Your task to perform on an android device: Search for "razer huntsman" on target, select the first entry, and add it to the cart. Image 0: 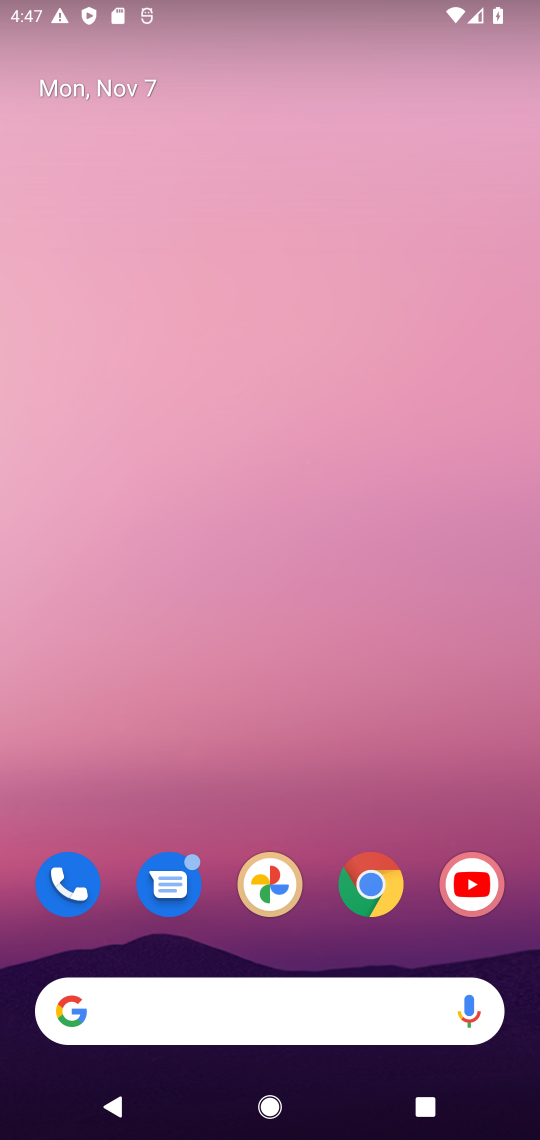
Step 0: drag from (314, 923) to (285, 105)
Your task to perform on an android device: Search for "razer huntsman" on target, select the first entry, and add it to the cart. Image 1: 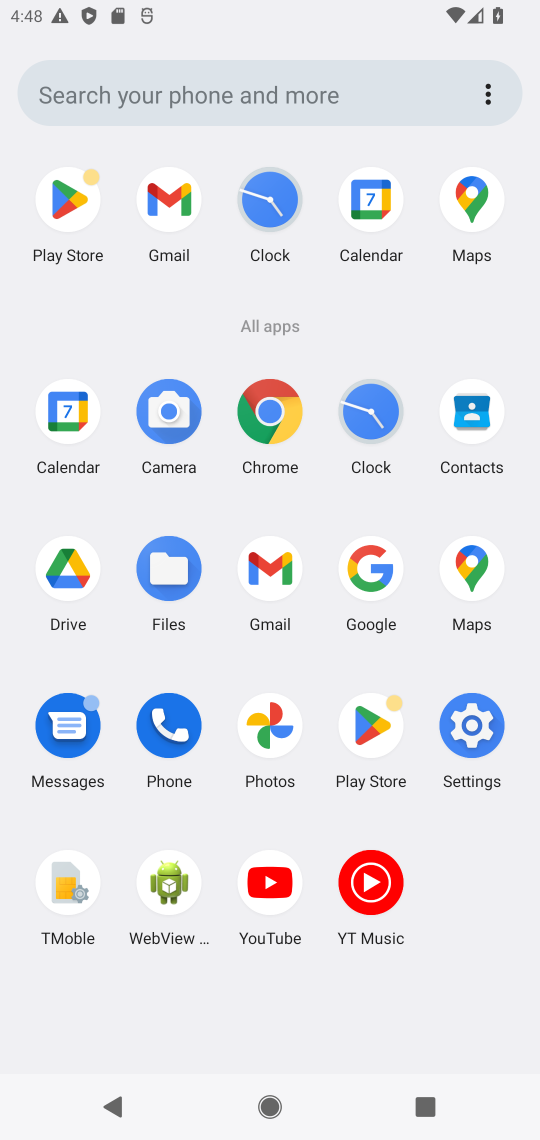
Step 1: click (272, 414)
Your task to perform on an android device: Search for "razer huntsman" on target, select the first entry, and add it to the cart. Image 2: 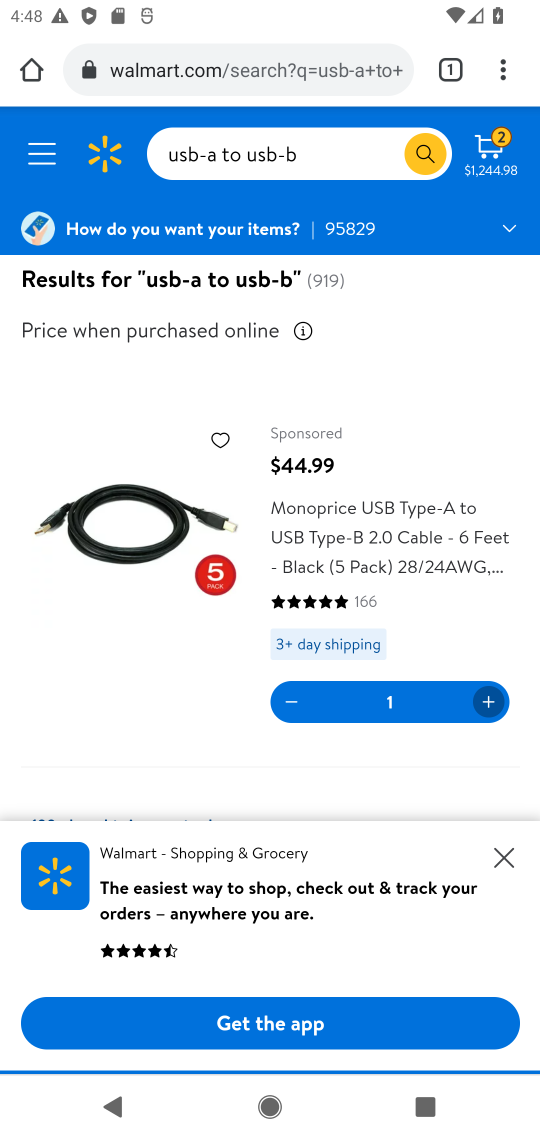
Step 2: click (291, 62)
Your task to perform on an android device: Search for "razer huntsman" on target, select the first entry, and add it to the cart. Image 3: 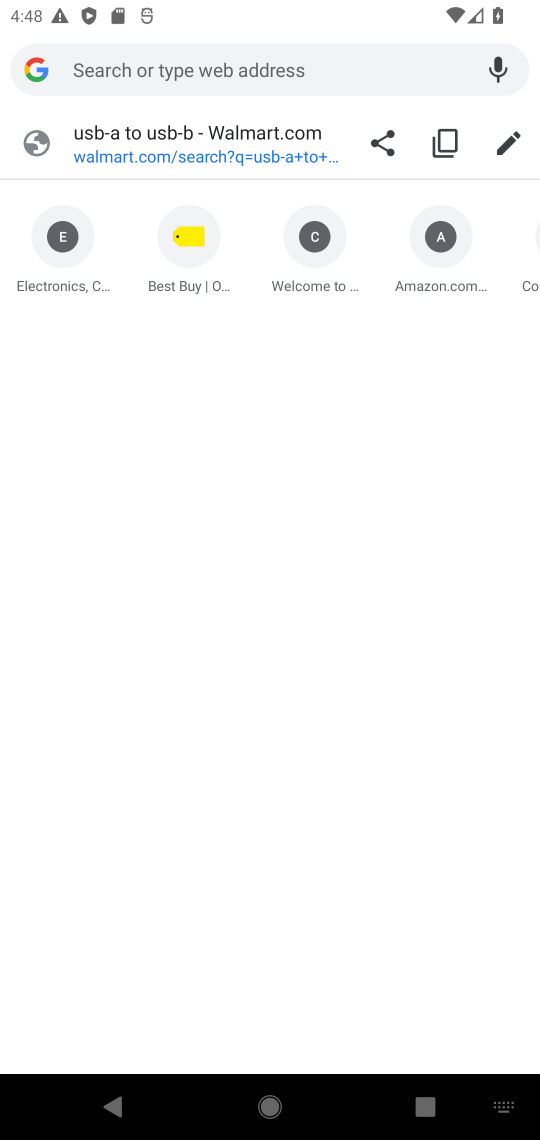
Step 3: type "target.com"
Your task to perform on an android device: Search for "razer huntsman" on target, select the first entry, and add it to the cart. Image 4: 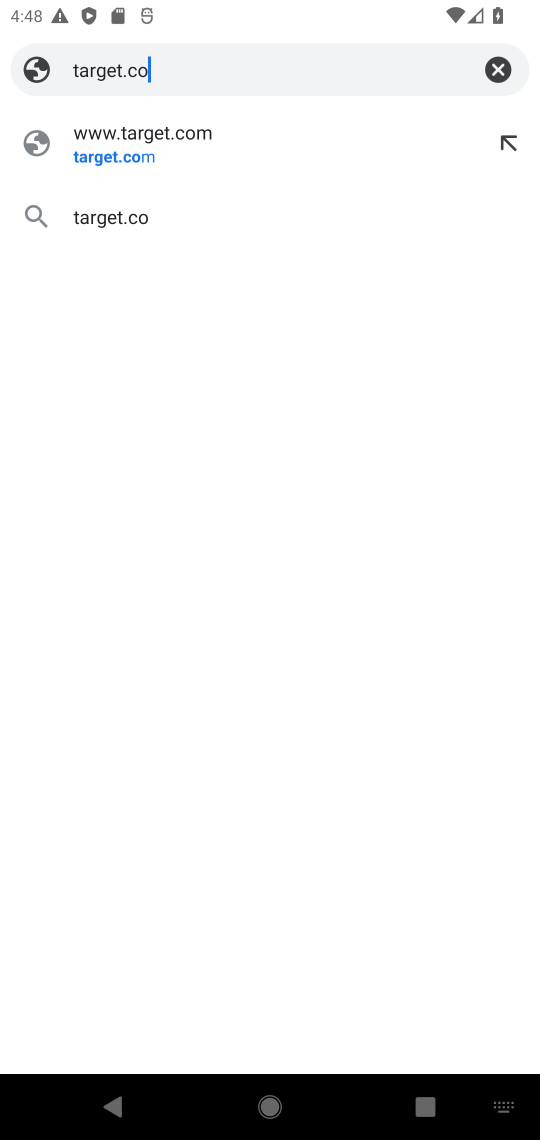
Step 4: press enter
Your task to perform on an android device: Search for "razer huntsman" on target, select the first entry, and add it to the cart. Image 5: 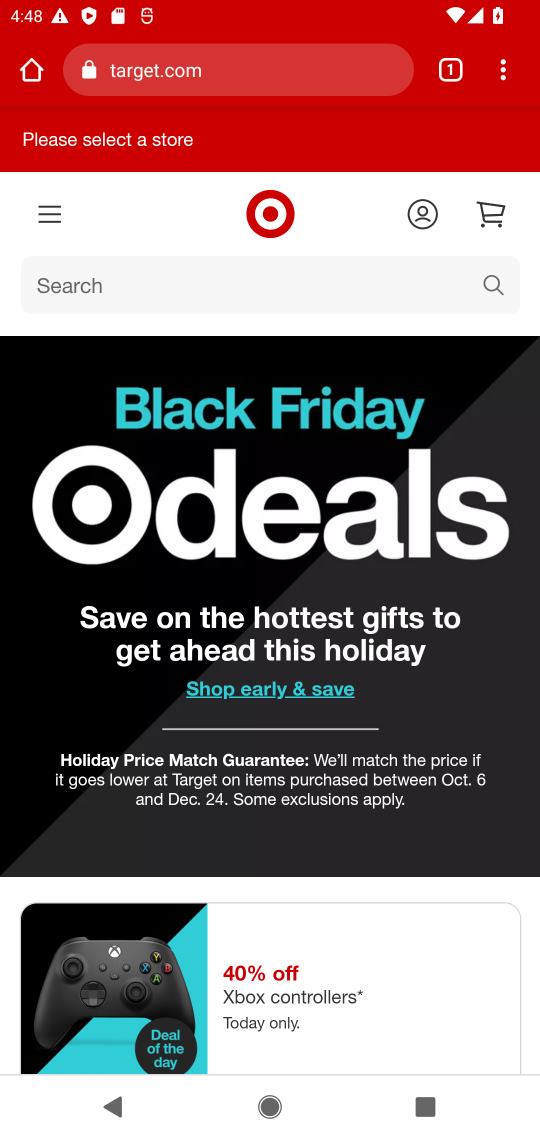
Step 5: drag from (338, 952) to (379, 1127)
Your task to perform on an android device: Search for "razer huntsman" on target, select the first entry, and add it to the cart. Image 6: 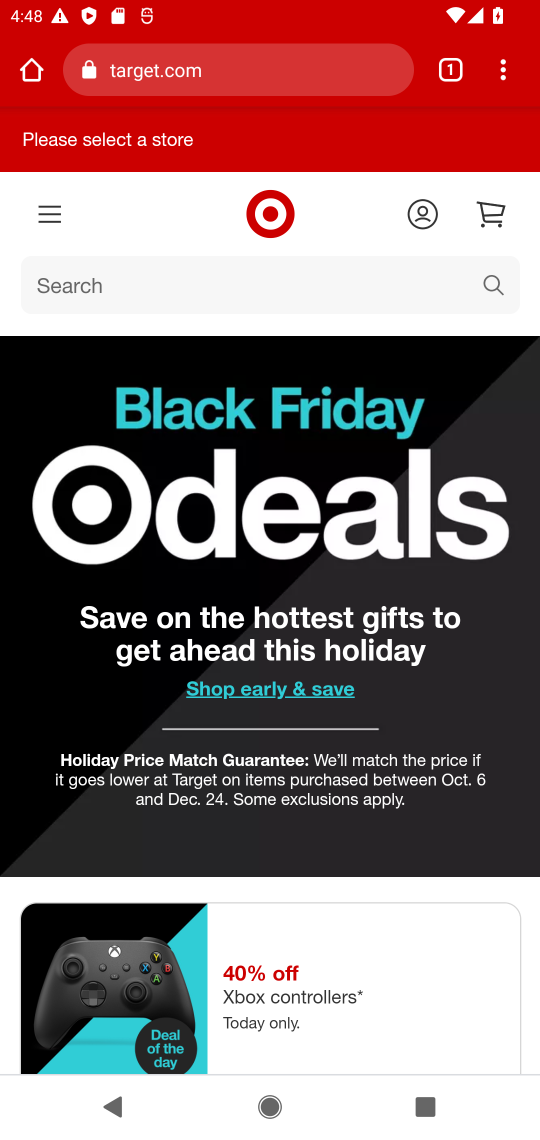
Step 6: click (139, 284)
Your task to perform on an android device: Search for "razer huntsman" on target, select the first entry, and add it to the cart. Image 7: 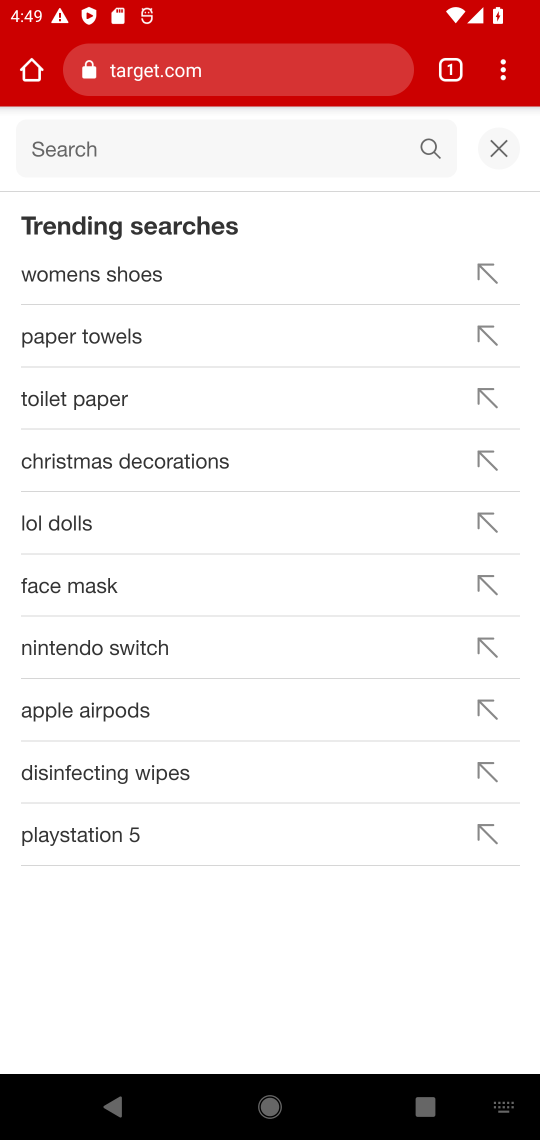
Step 7: type "razer huntsman"
Your task to perform on an android device: Search for "razer huntsman" on target, select the first entry, and add it to the cart. Image 8: 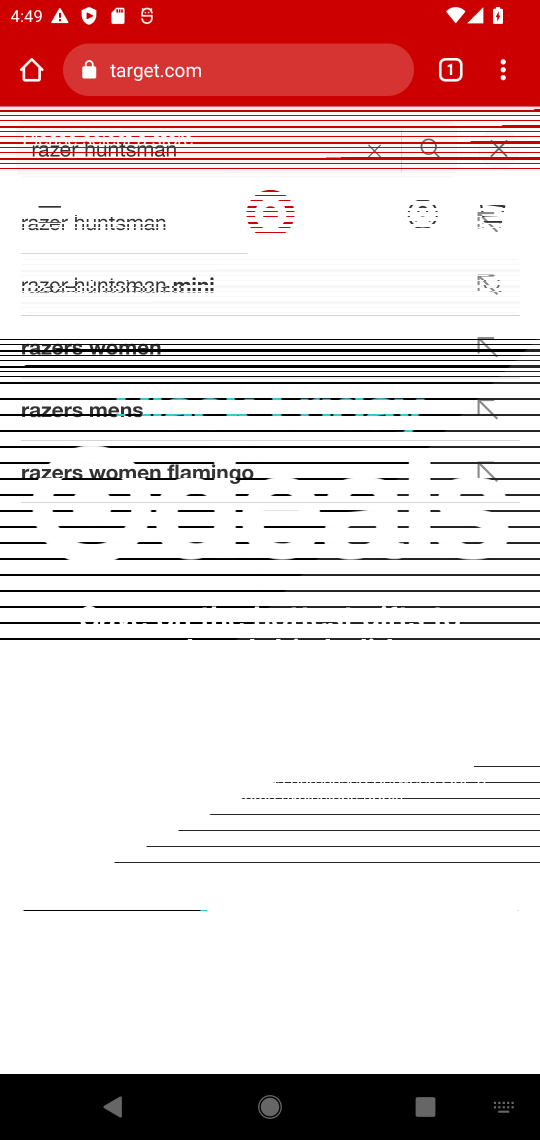
Step 8: press enter
Your task to perform on an android device: Search for "razer huntsman" on target, select the first entry, and add it to the cart. Image 9: 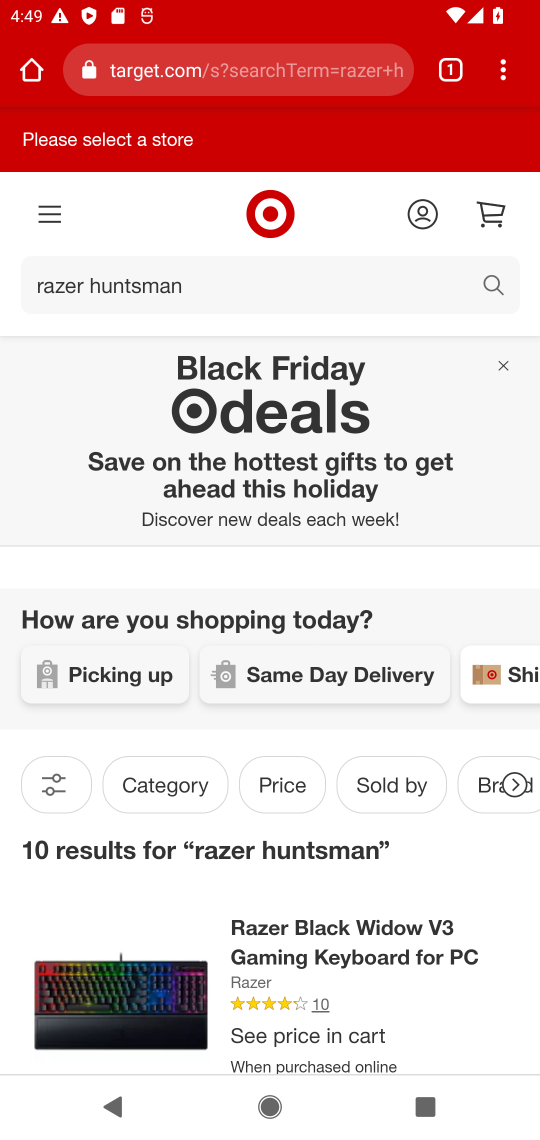
Step 9: drag from (338, 643) to (344, 137)
Your task to perform on an android device: Search for "razer huntsman" on target, select the first entry, and add it to the cart. Image 10: 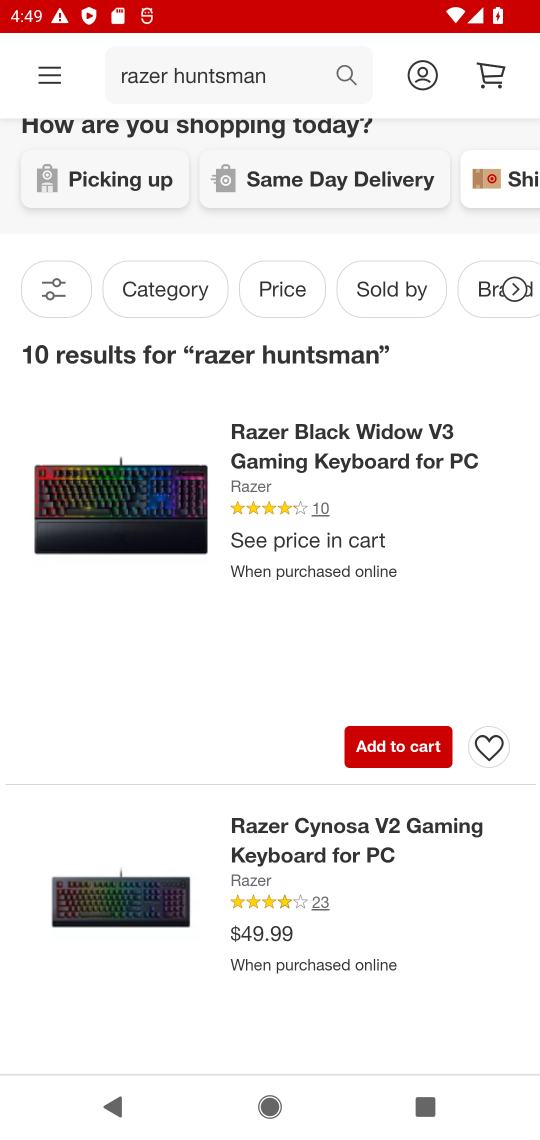
Step 10: drag from (260, 774) to (262, 1119)
Your task to perform on an android device: Search for "razer huntsman" on target, select the first entry, and add it to the cart. Image 11: 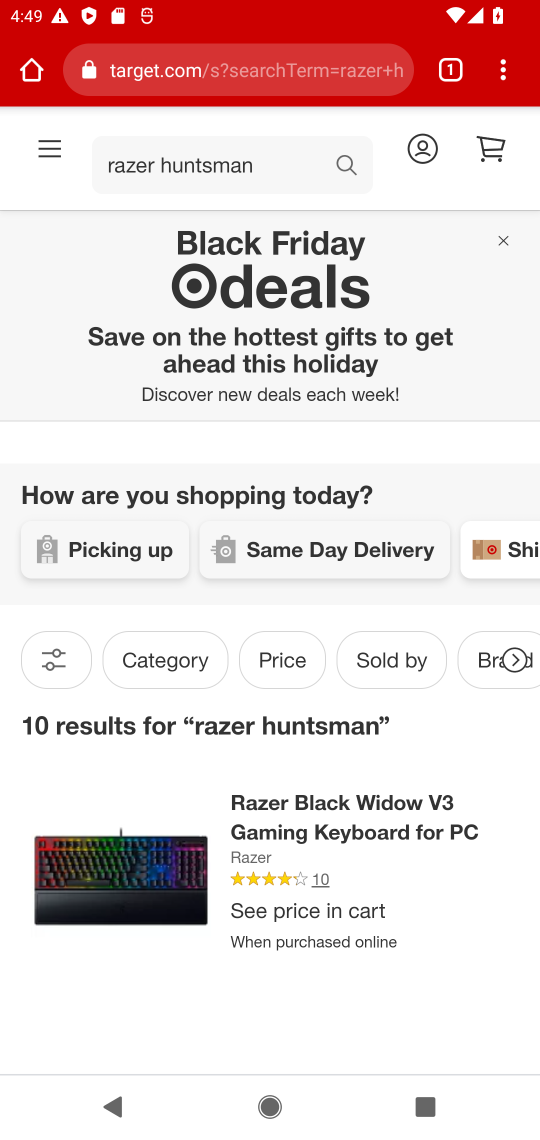
Step 11: drag from (269, 563) to (370, 220)
Your task to perform on an android device: Search for "razer huntsman" on target, select the first entry, and add it to the cart. Image 12: 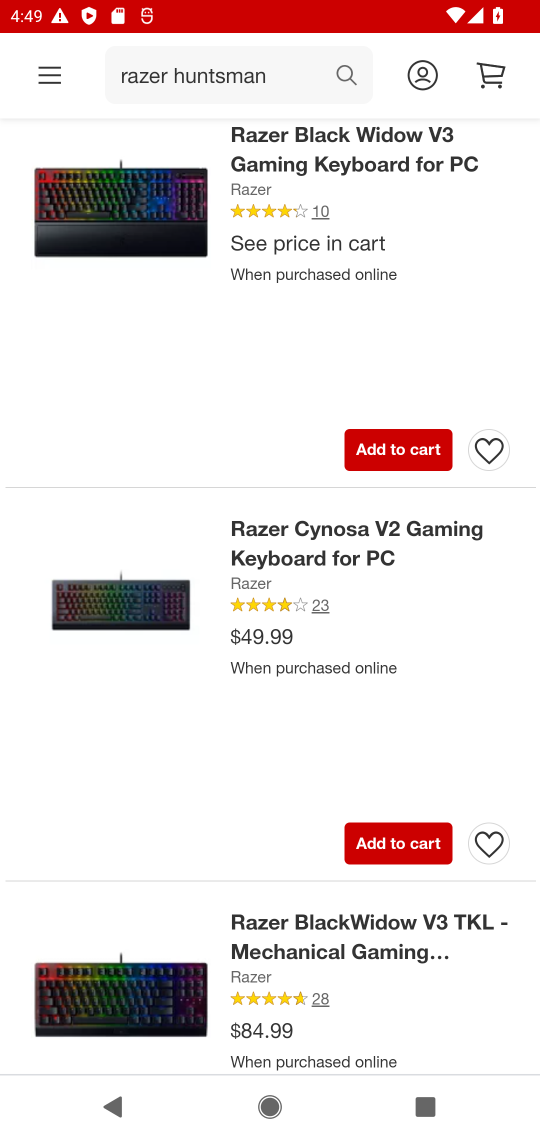
Step 12: drag from (330, 835) to (457, 225)
Your task to perform on an android device: Search for "razer huntsman" on target, select the first entry, and add it to the cart. Image 13: 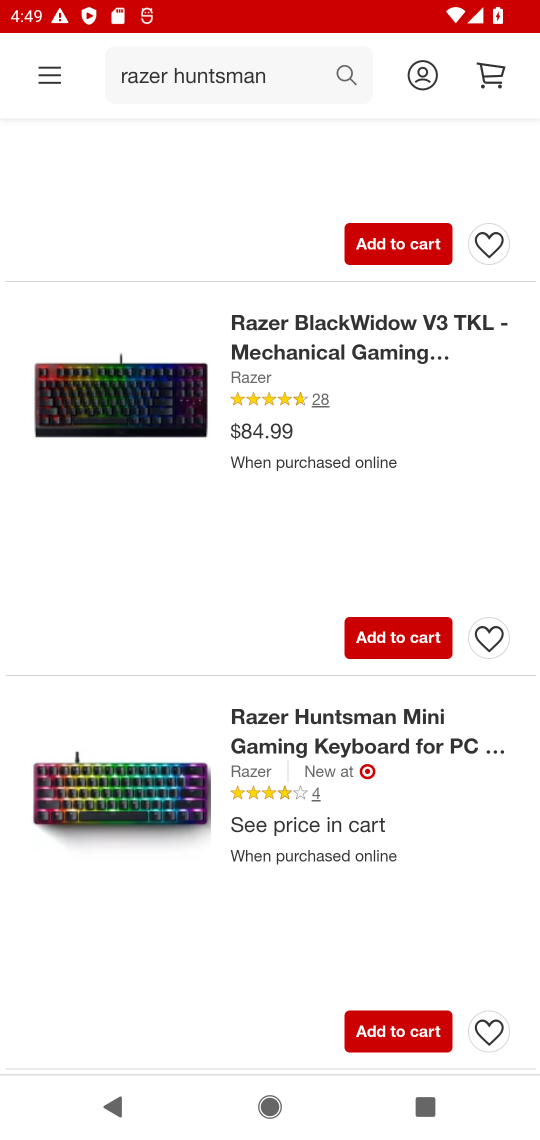
Step 13: drag from (333, 839) to (368, 458)
Your task to perform on an android device: Search for "razer huntsman" on target, select the first entry, and add it to the cart. Image 14: 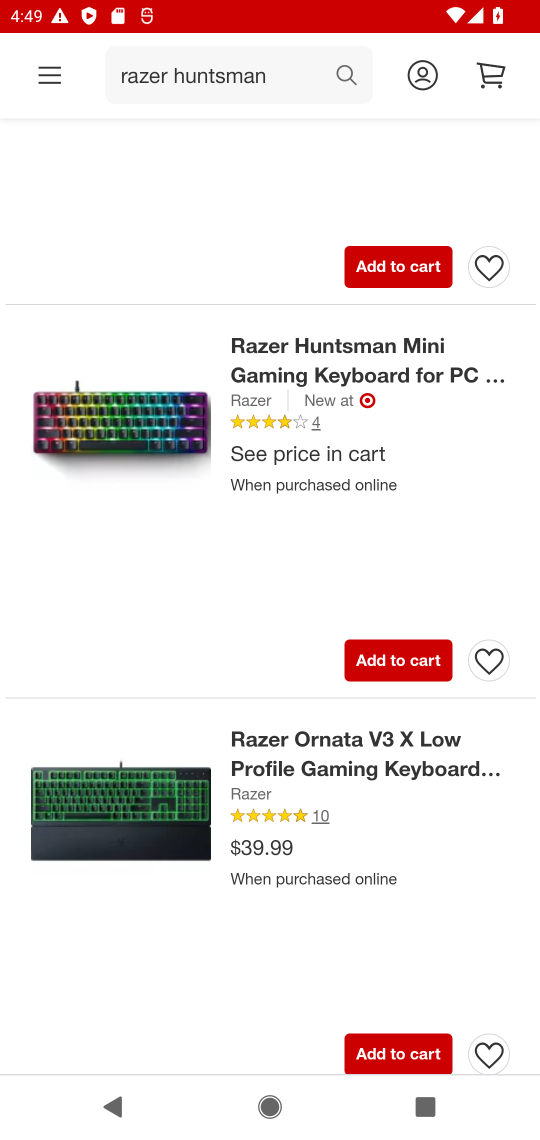
Step 14: click (387, 661)
Your task to perform on an android device: Search for "razer huntsman" on target, select the first entry, and add it to the cart. Image 15: 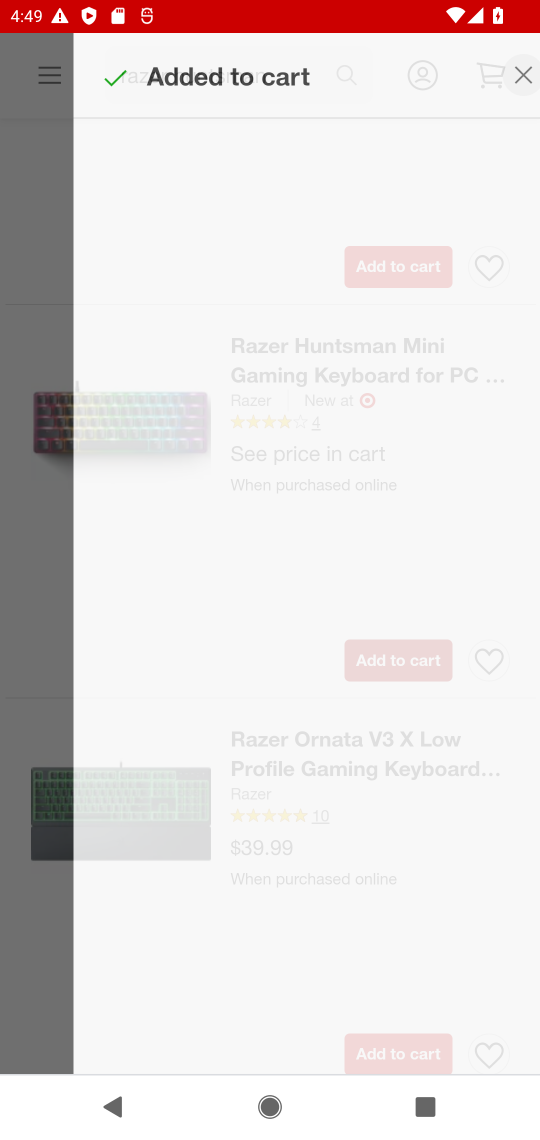
Step 15: task complete